Your task to perform on an android device: delete a single message in the gmail app Image 0: 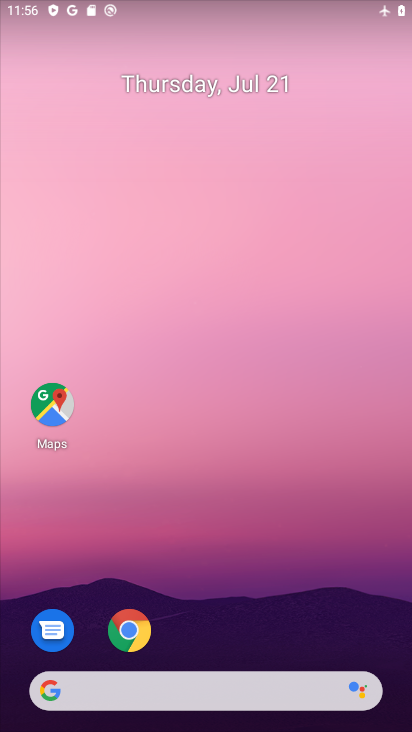
Step 0: drag from (207, 660) to (206, 127)
Your task to perform on an android device: delete a single message in the gmail app Image 1: 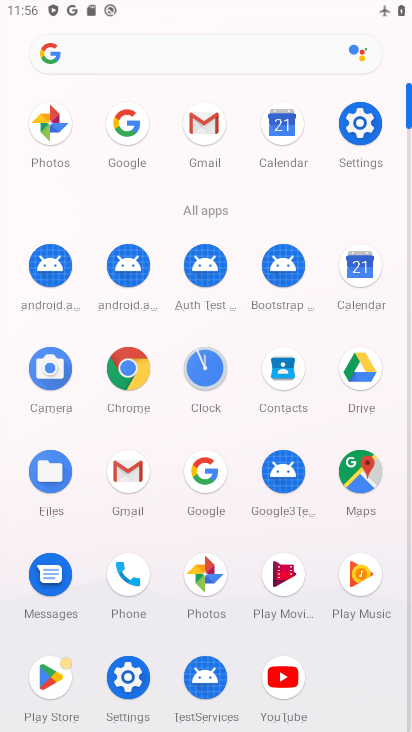
Step 1: click (132, 486)
Your task to perform on an android device: delete a single message in the gmail app Image 2: 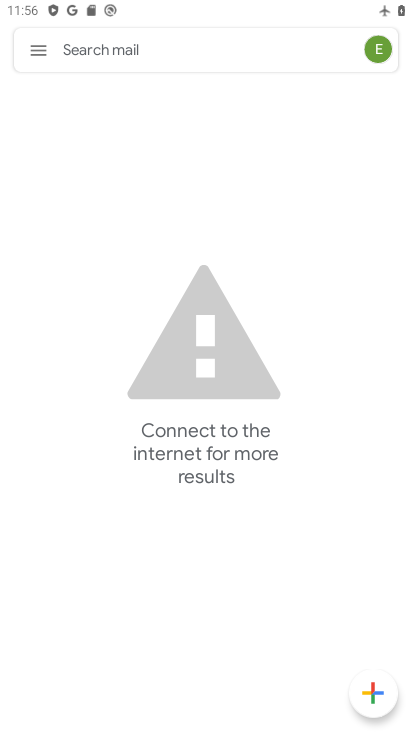
Step 2: task complete